Your task to perform on an android device: open app "Microsoft Excel" (install if not already installed) Image 0: 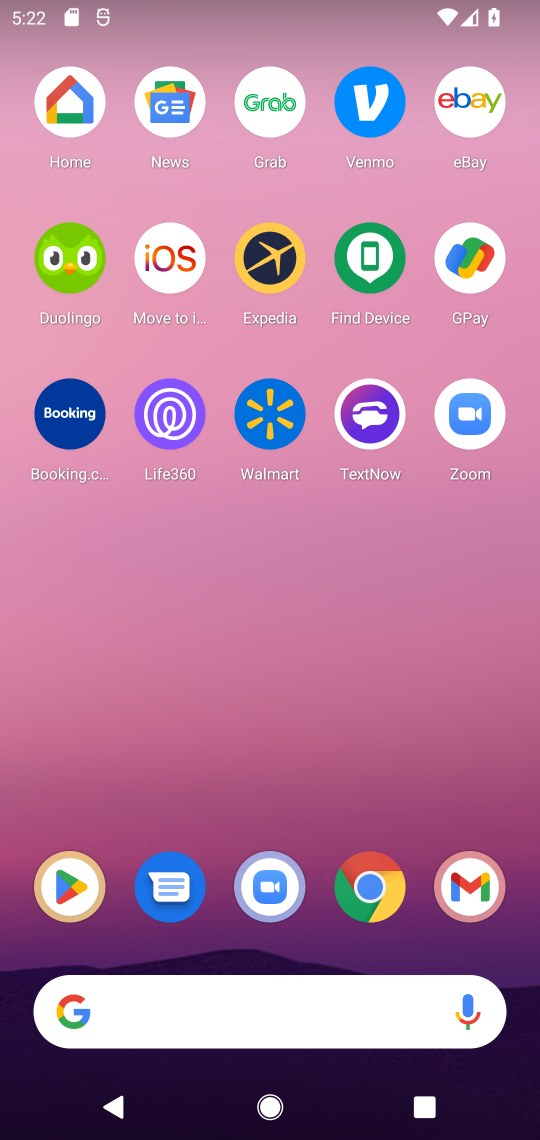
Step 0: click (85, 913)
Your task to perform on an android device: open app "Microsoft Excel" (install if not already installed) Image 1: 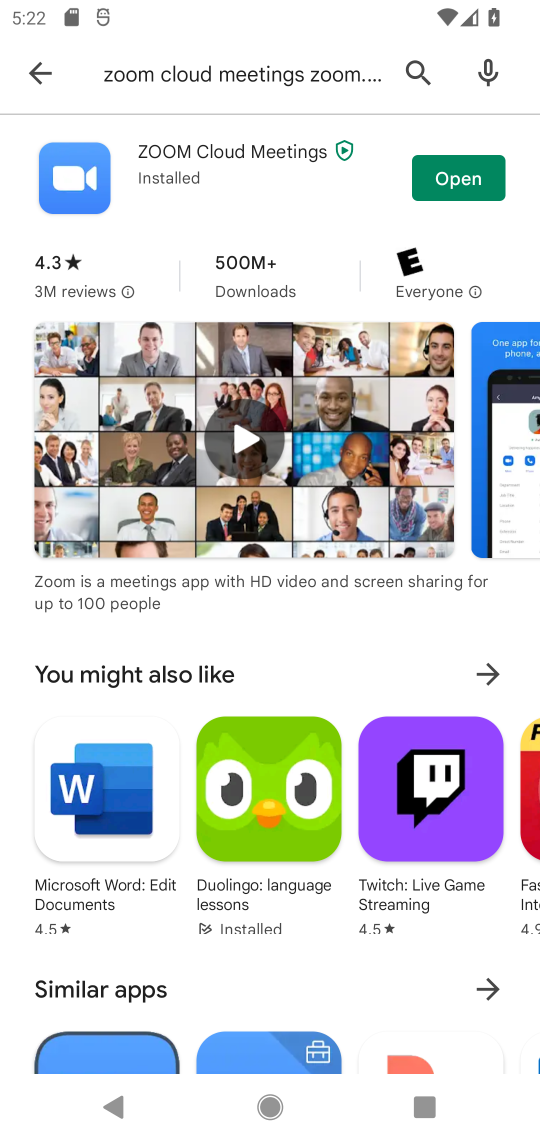
Step 1: click (19, 86)
Your task to perform on an android device: open app "Microsoft Excel" (install if not already installed) Image 2: 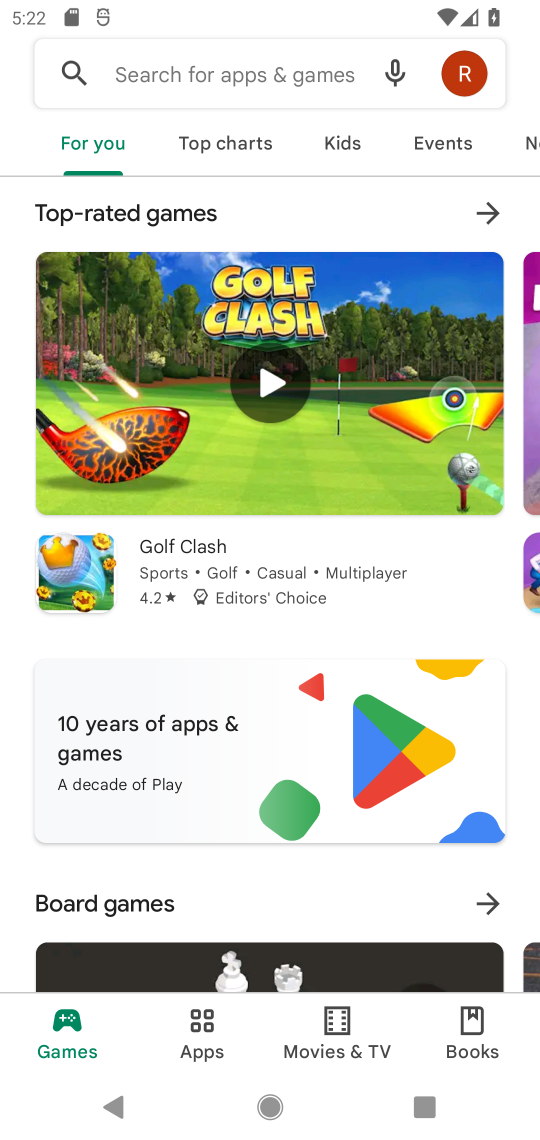
Step 2: click (130, 64)
Your task to perform on an android device: open app "Microsoft Excel" (install if not already installed) Image 3: 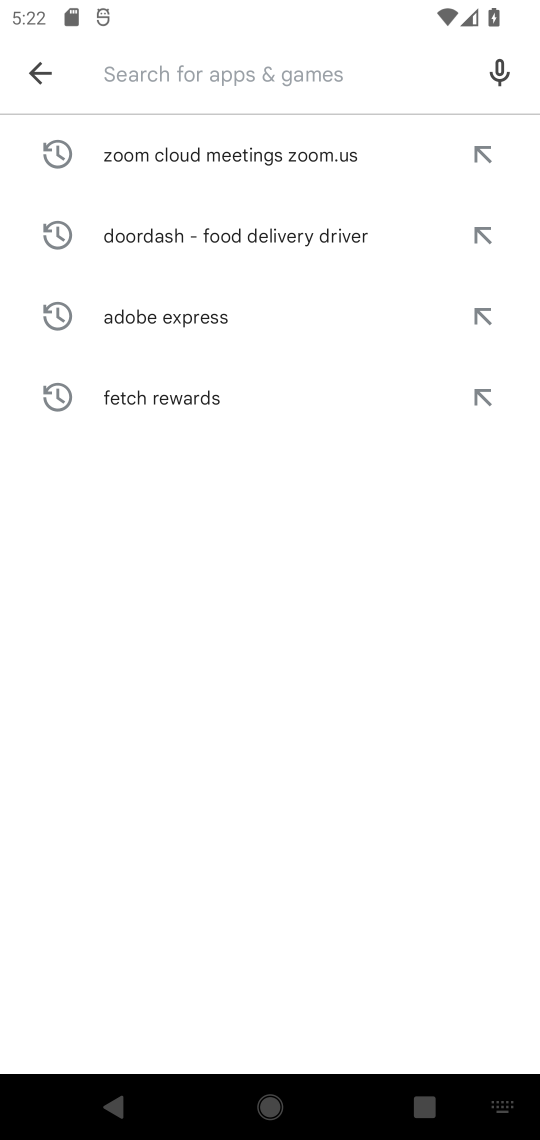
Step 3: type "Microsoft Exce"
Your task to perform on an android device: open app "Microsoft Excel" (install if not already installed) Image 4: 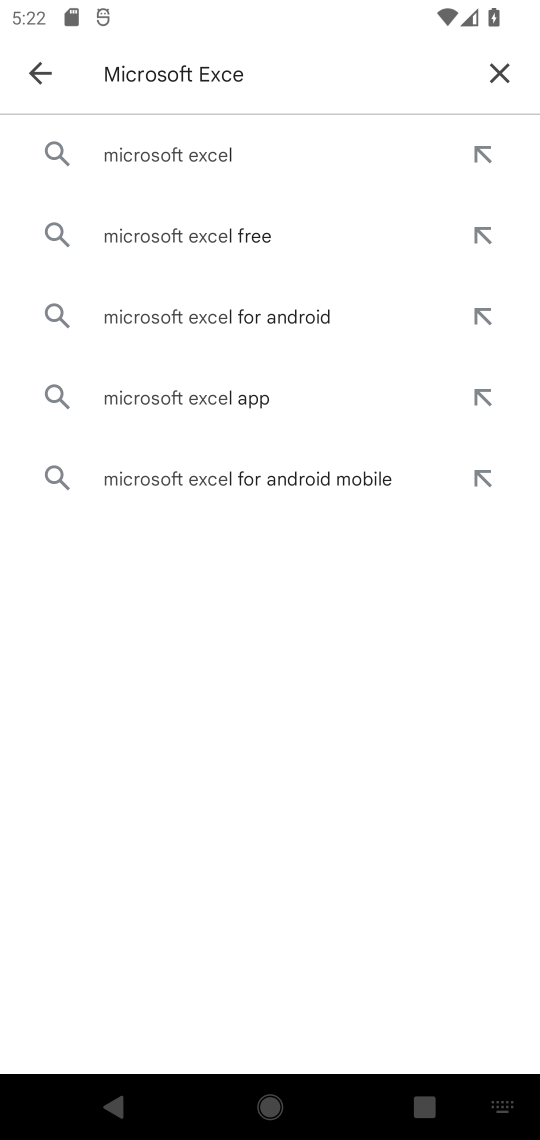
Step 4: click (197, 169)
Your task to perform on an android device: open app "Microsoft Excel" (install if not already installed) Image 5: 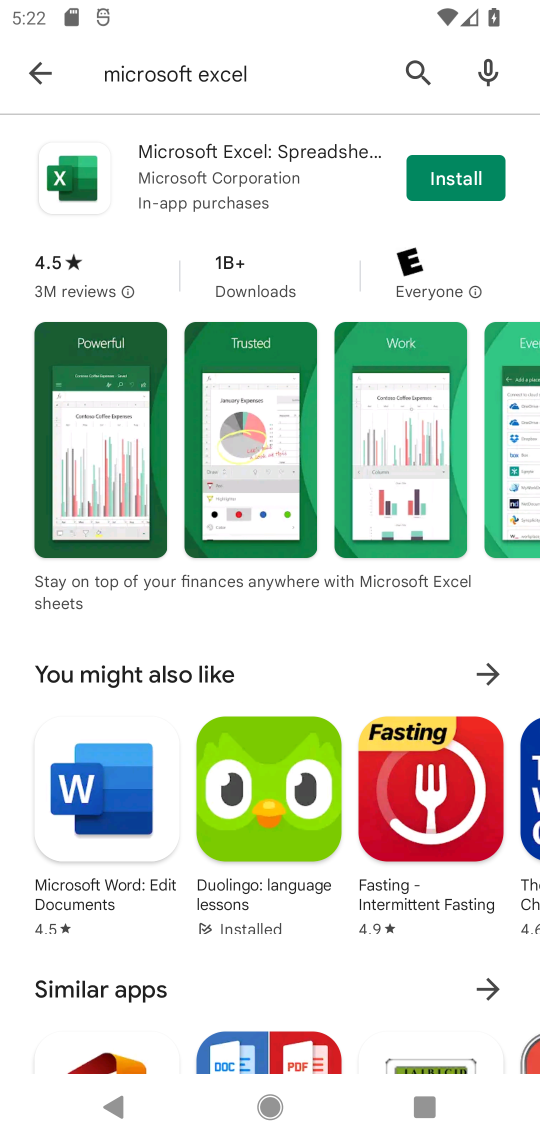
Step 5: click (454, 173)
Your task to perform on an android device: open app "Microsoft Excel" (install if not already installed) Image 6: 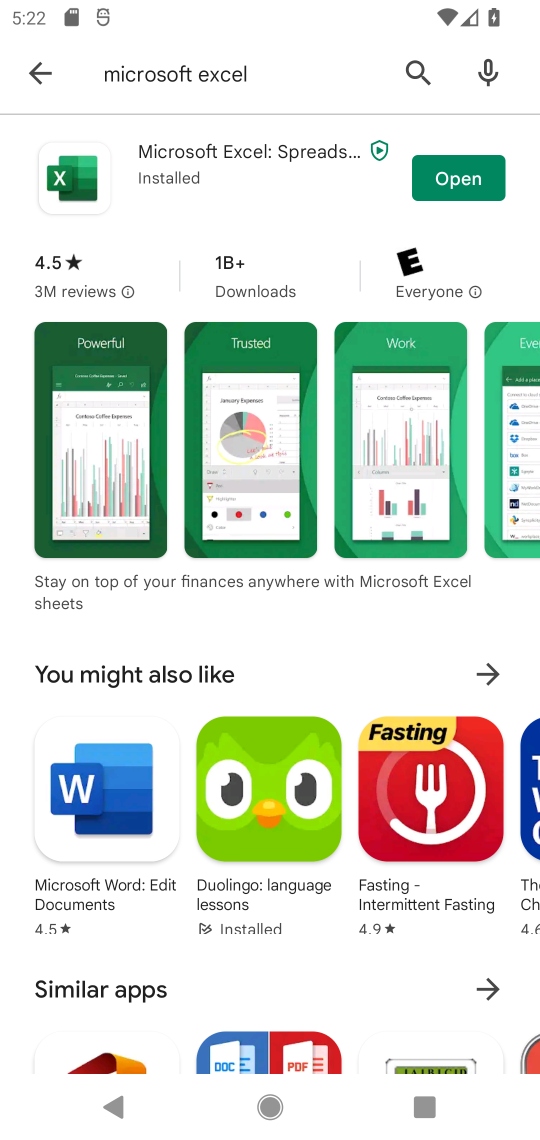
Step 6: click (454, 173)
Your task to perform on an android device: open app "Microsoft Excel" (install if not already installed) Image 7: 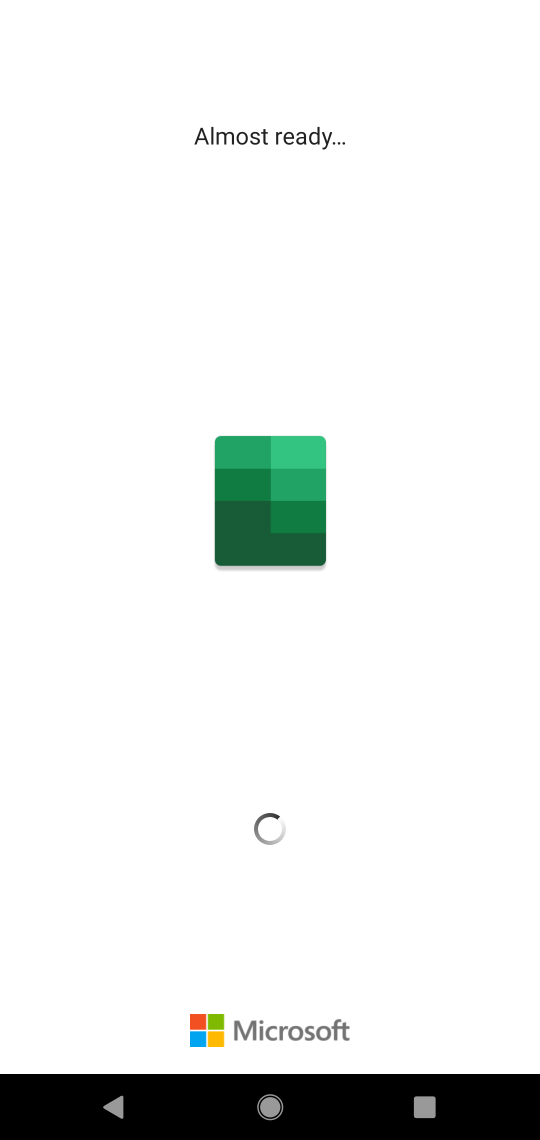
Step 7: task complete